Your task to perform on an android device: Search for pizza restaurants on Maps Image 0: 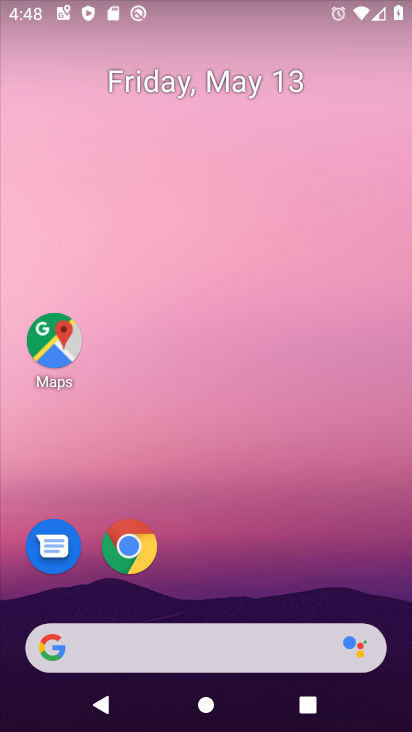
Step 0: click (65, 351)
Your task to perform on an android device: Search for pizza restaurants on Maps Image 1: 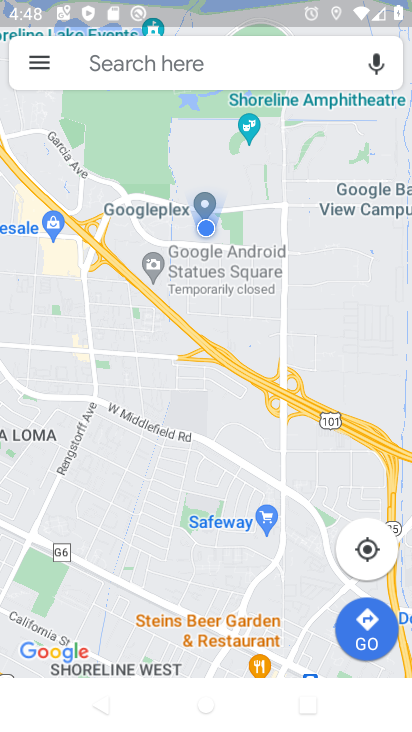
Step 1: click (127, 70)
Your task to perform on an android device: Search for pizza restaurants on Maps Image 2: 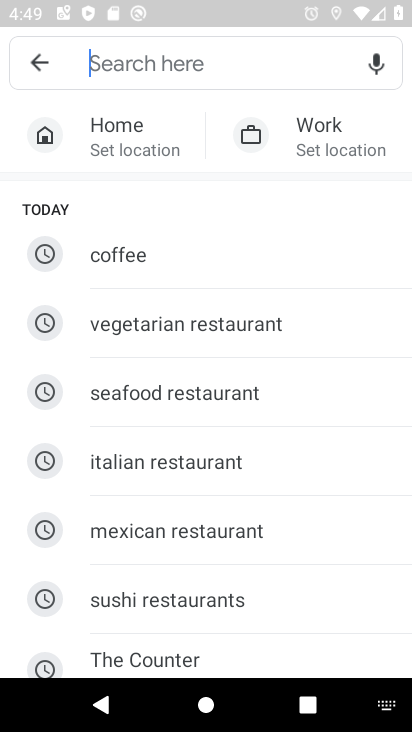
Step 2: type "Pizza restaurant"
Your task to perform on an android device: Search for pizza restaurants on Maps Image 3: 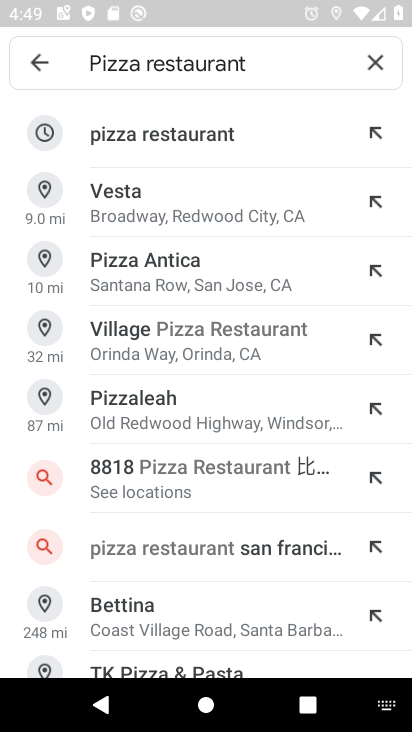
Step 3: click (145, 129)
Your task to perform on an android device: Search for pizza restaurants on Maps Image 4: 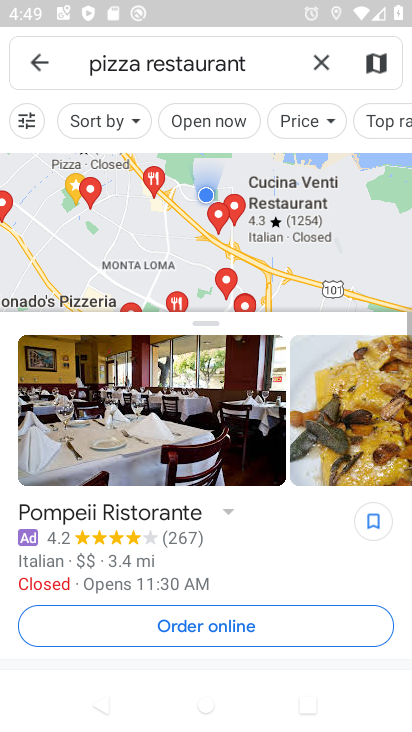
Step 4: task complete